Your task to perform on an android device: Go to sound settings Image 0: 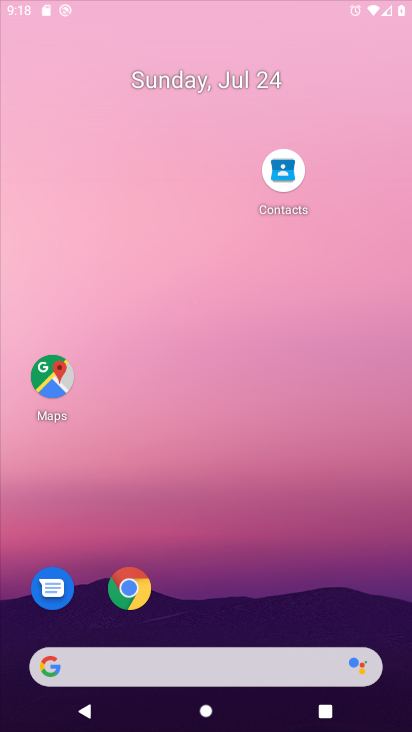
Step 0: press home button
Your task to perform on an android device: Go to sound settings Image 1: 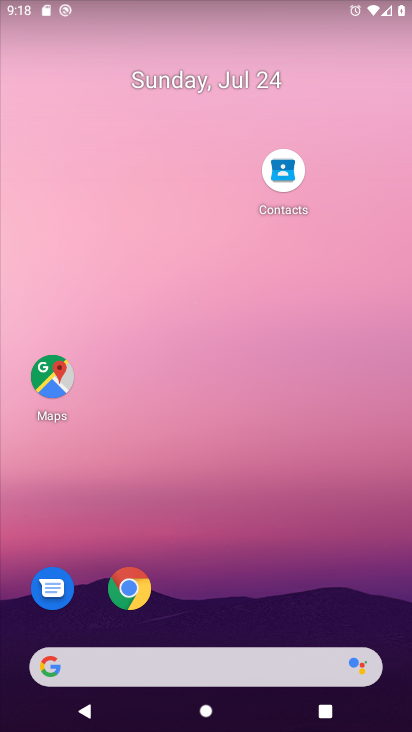
Step 1: drag from (220, 629) to (227, 0)
Your task to perform on an android device: Go to sound settings Image 2: 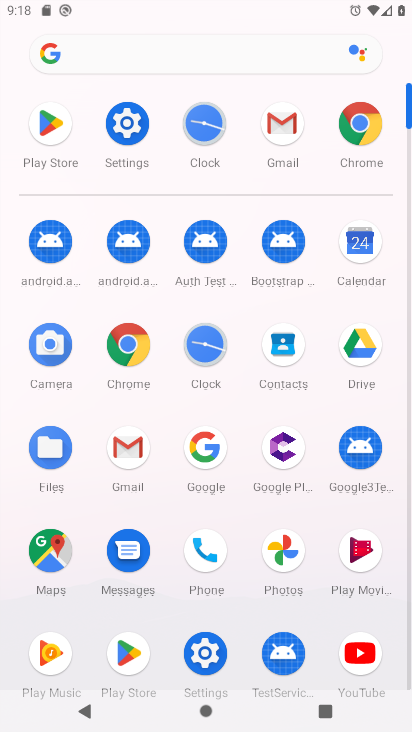
Step 2: click (207, 649)
Your task to perform on an android device: Go to sound settings Image 3: 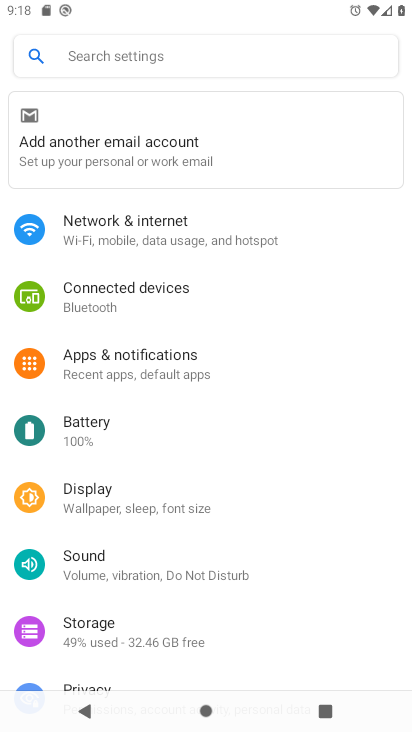
Step 3: click (122, 557)
Your task to perform on an android device: Go to sound settings Image 4: 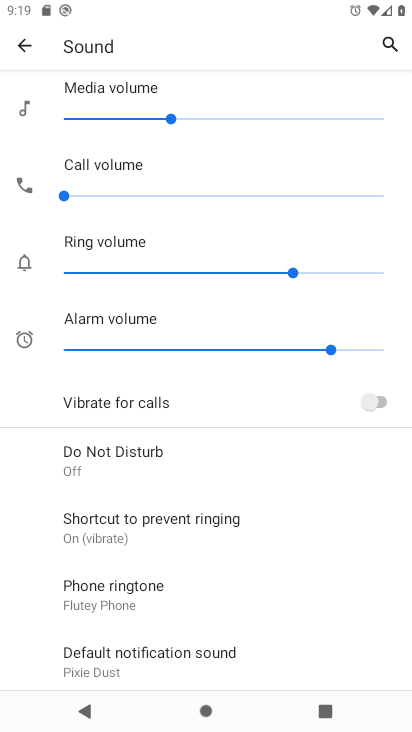
Step 4: drag from (195, 661) to (196, 131)
Your task to perform on an android device: Go to sound settings Image 5: 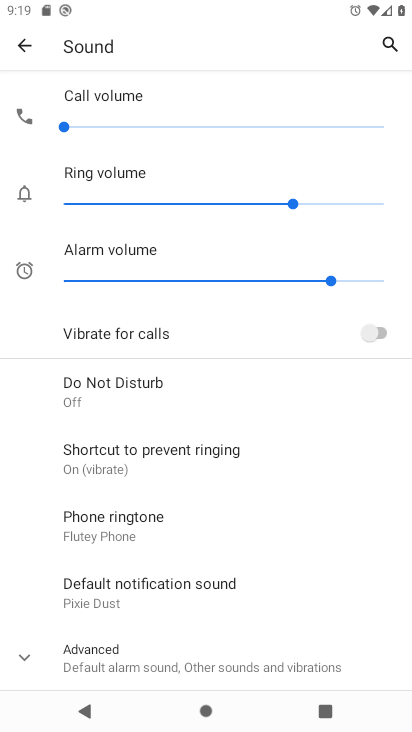
Step 5: click (19, 654)
Your task to perform on an android device: Go to sound settings Image 6: 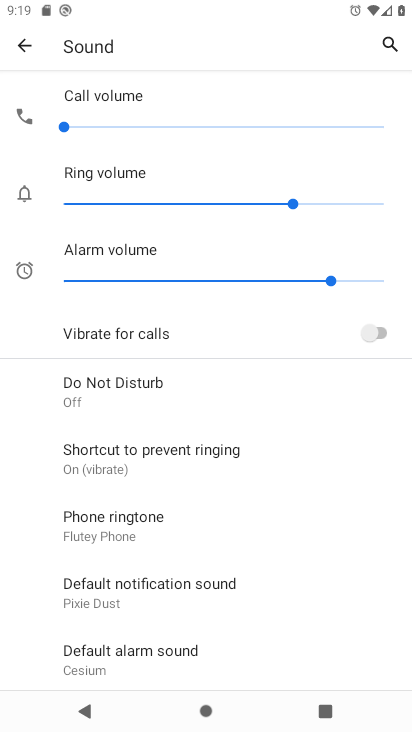
Step 6: task complete